Your task to perform on an android device: Open network settings Image 0: 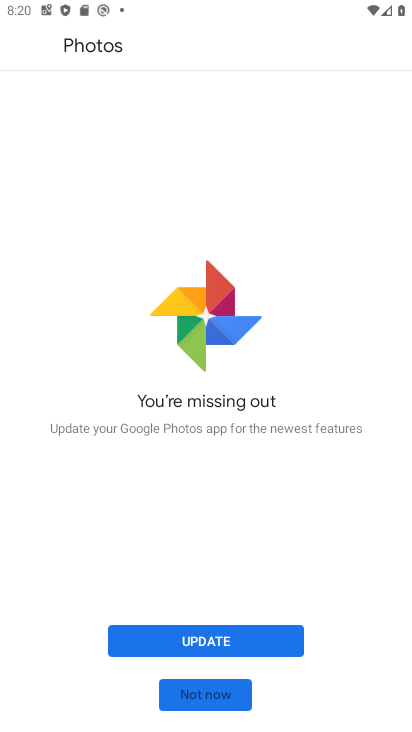
Step 0: press home button
Your task to perform on an android device: Open network settings Image 1: 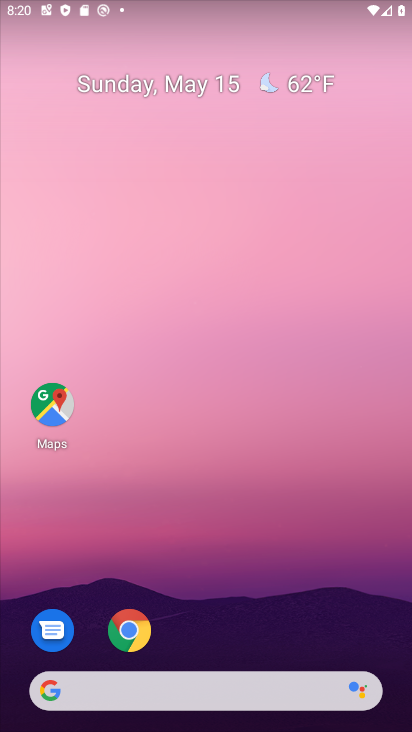
Step 1: drag from (226, 644) to (260, 83)
Your task to perform on an android device: Open network settings Image 2: 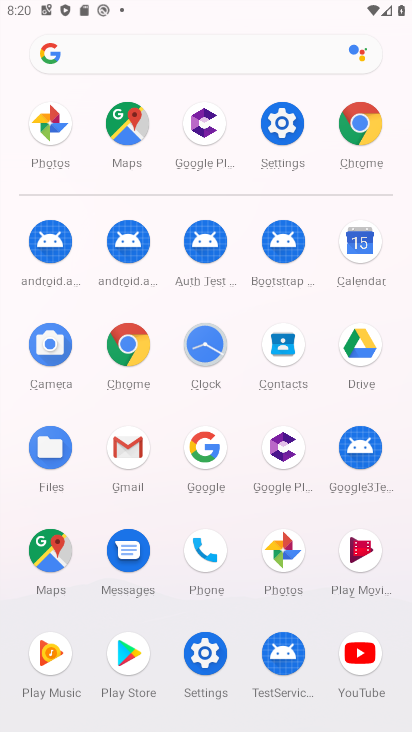
Step 2: click (284, 137)
Your task to perform on an android device: Open network settings Image 3: 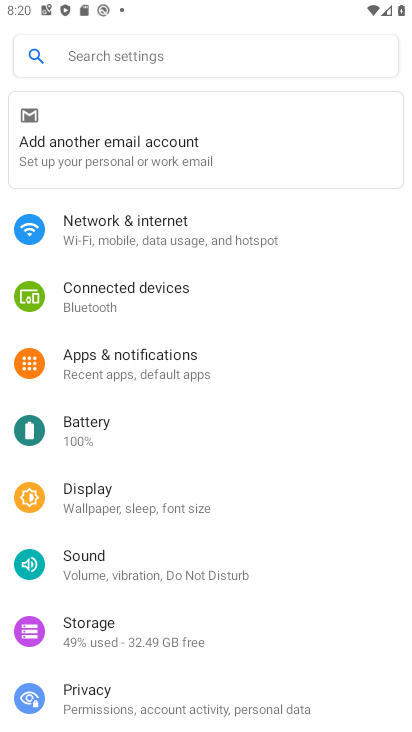
Step 3: click (179, 238)
Your task to perform on an android device: Open network settings Image 4: 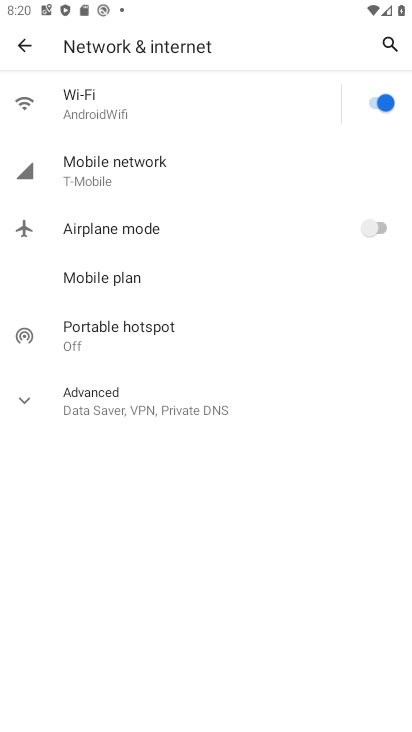
Step 4: task complete